Your task to perform on an android device: turn off picture-in-picture Image 0: 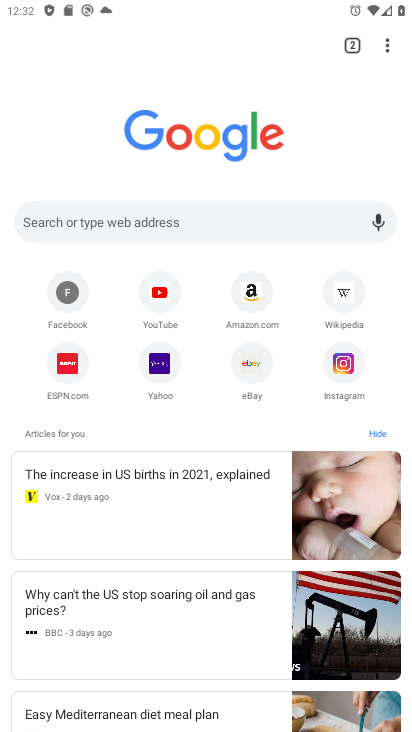
Step 0: press home button
Your task to perform on an android device: turn off picture-in-picture Image 1: 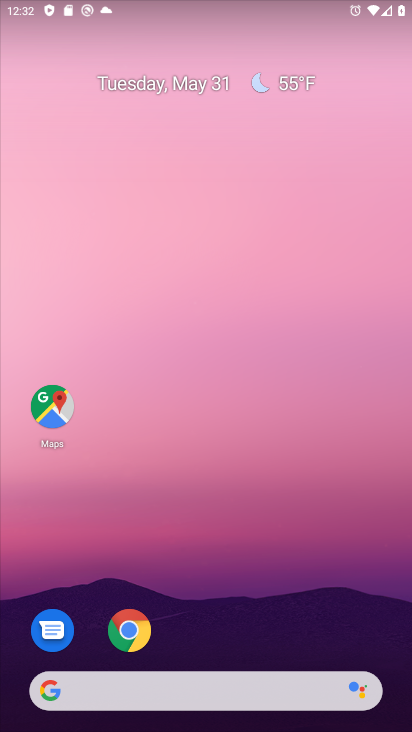
Step 1: click (127, 639)
Your task to perform on an android device: turn off picture-in-picture Image 2: 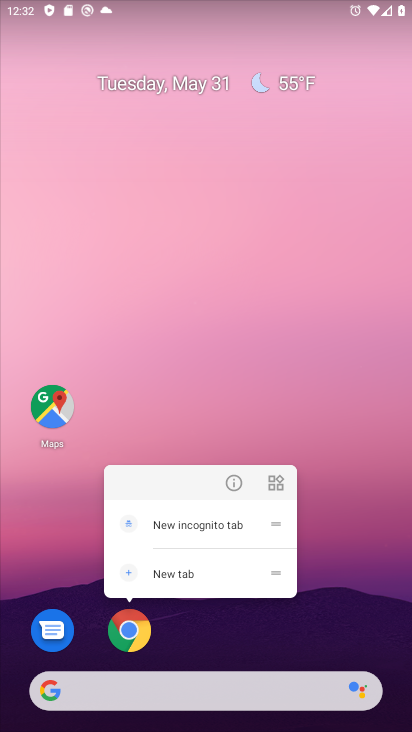
Step 2: click (236, 486)
Your task to perform on an android device: turn off picture-in-picture Image 3: 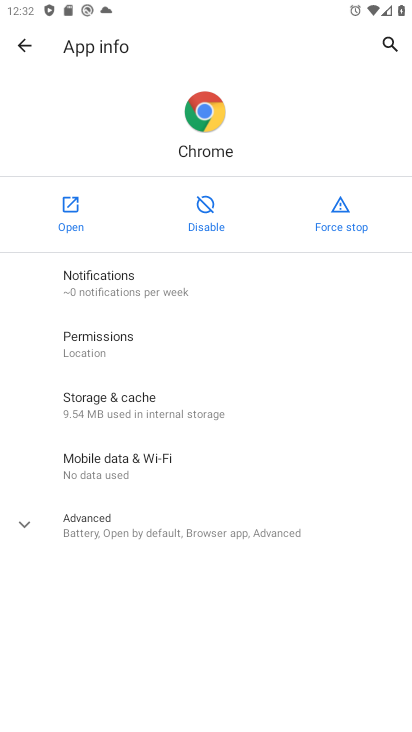
Step 3: click (143, 528)
Your task to perform on an android device: turn off picture-in-picture Image 4: 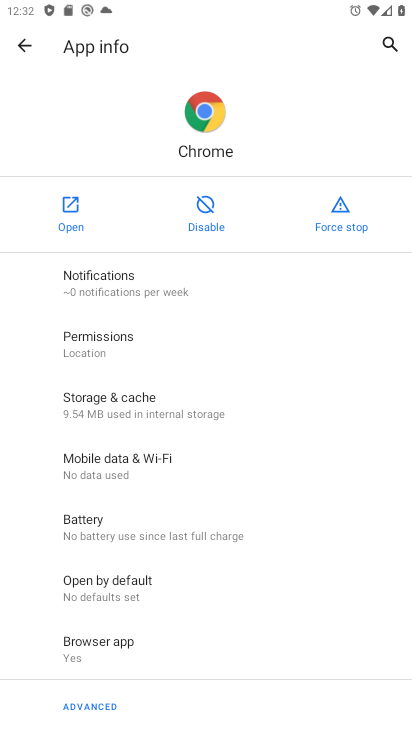
Step 4: drag from (157, 723) to (155, 438)
Your task to perform on an android device: turn off picture-in-picture Image 5: 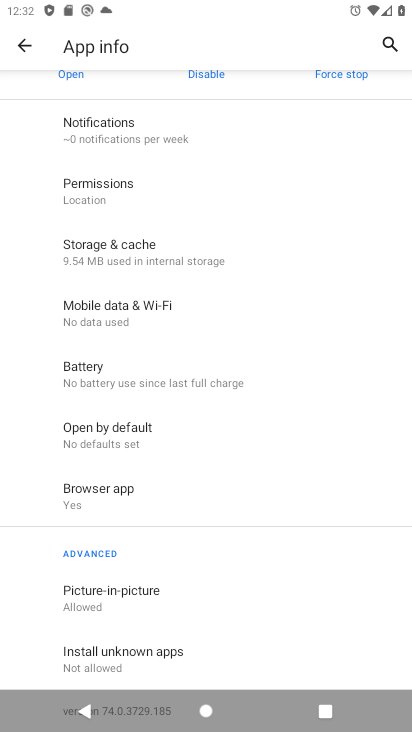
Step 5: click (144, 600)
Your task to perform on an android device: turn off picture-in-picture Image 6: 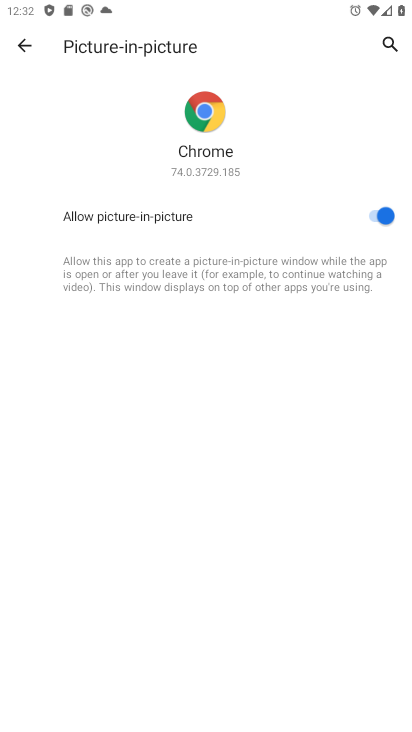
Step 6: click (373, 216)
Your task to perform on an android device: turn off picture-in-picture Image 7: 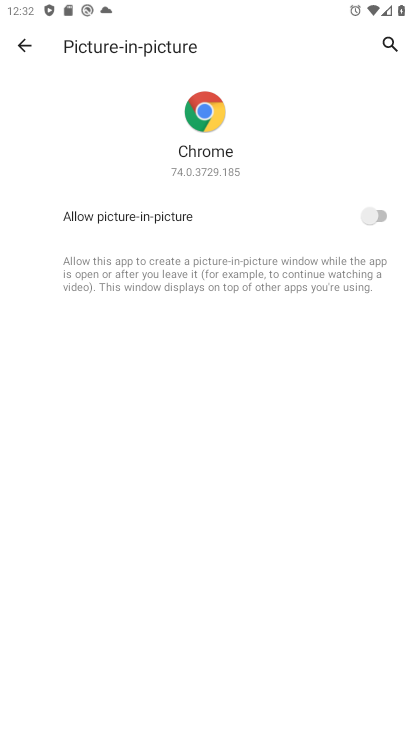
Step 7: task complete